Your task to perform on an android device: check google app version Image 0: 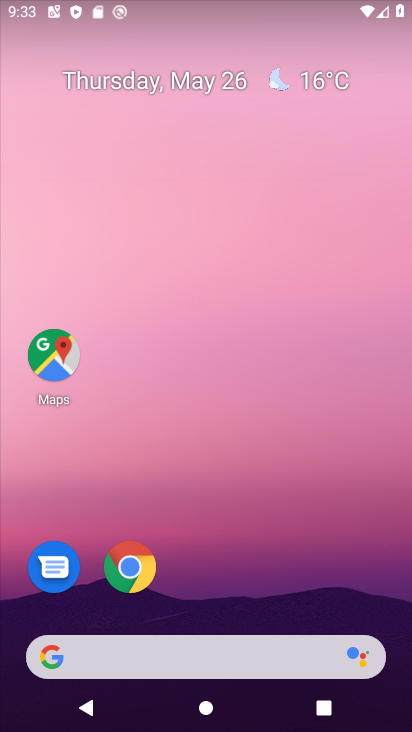
Step 0: click (317, 205)
Your task to perform on an android device: check google app version Image 1: 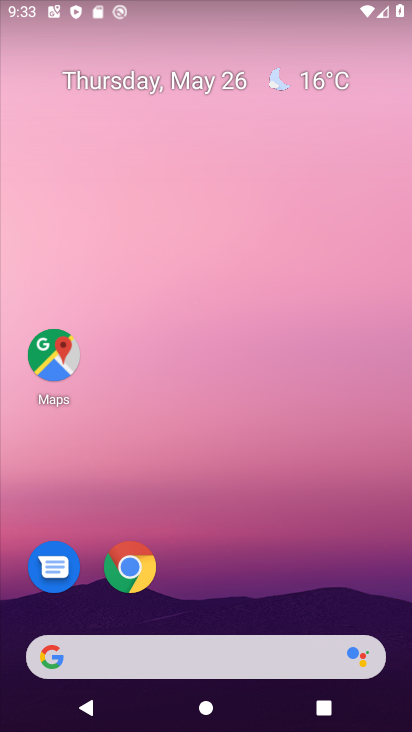
Step 1: drag from (390, 681) to (346, 233)
Your task to perform on an android device: check google app version Image 2: 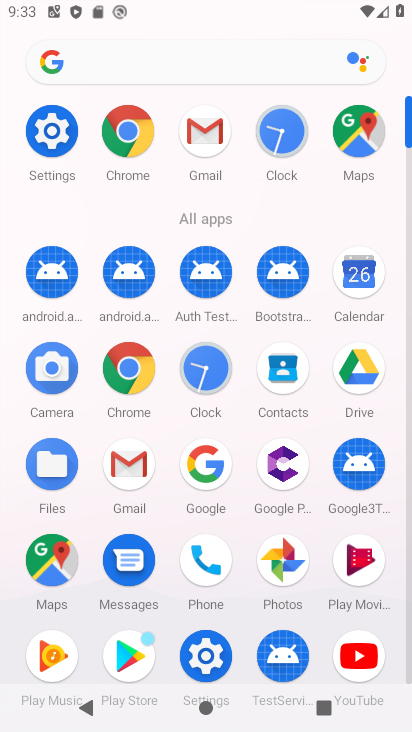
Step 2: click (218, 469)
Your task to perform on an android device: check google app version Image 3: 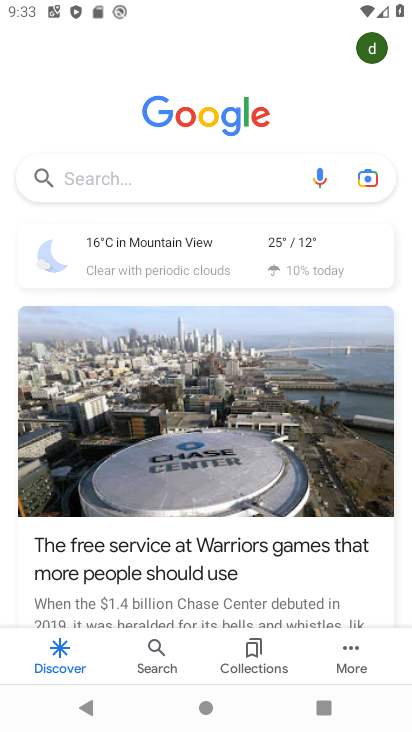
Step 3: click (350, 654)
Your task to perform on an android device: check google app version Image 4: 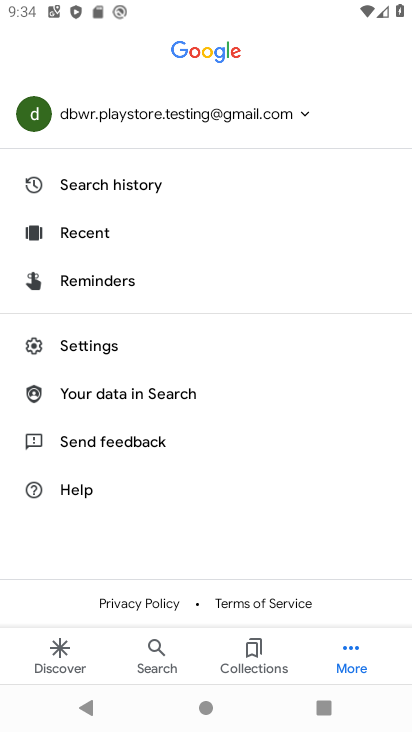
Step 4: click (77, 342)
Your task to perform on an android device: check google app version Image 5: 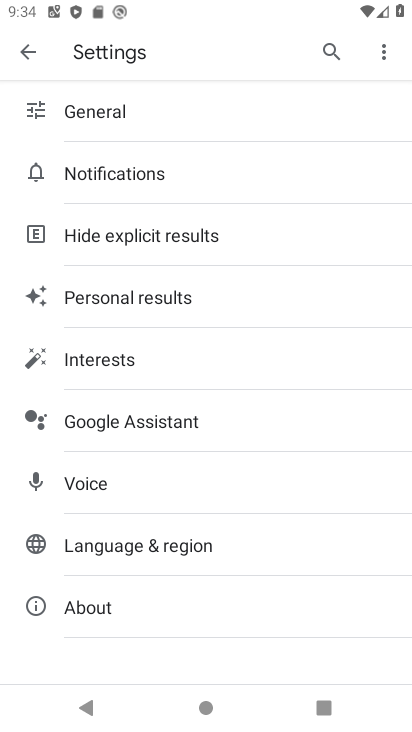
Step 5: click (75, 605)
Your task to perform on an android device: check google app version Image 6: 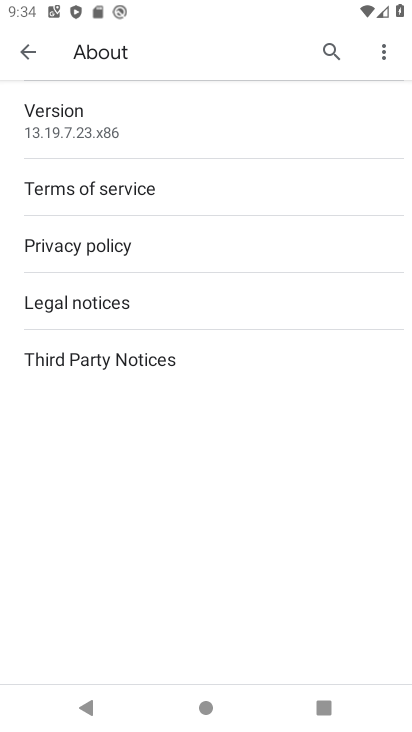
Step 6: click (98, 112)
Your task to perform on an android device: check google app version Image 7: 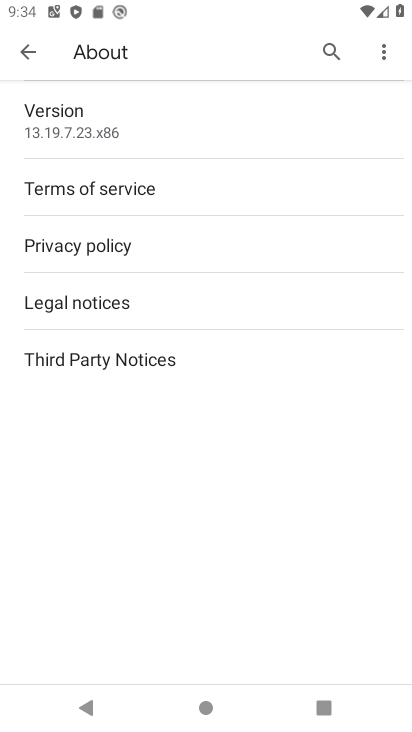
Step 7: task complete